Your task to perform on an android device: Search for asus rog on target, select the first entry, and add it to the cart. Image 0: 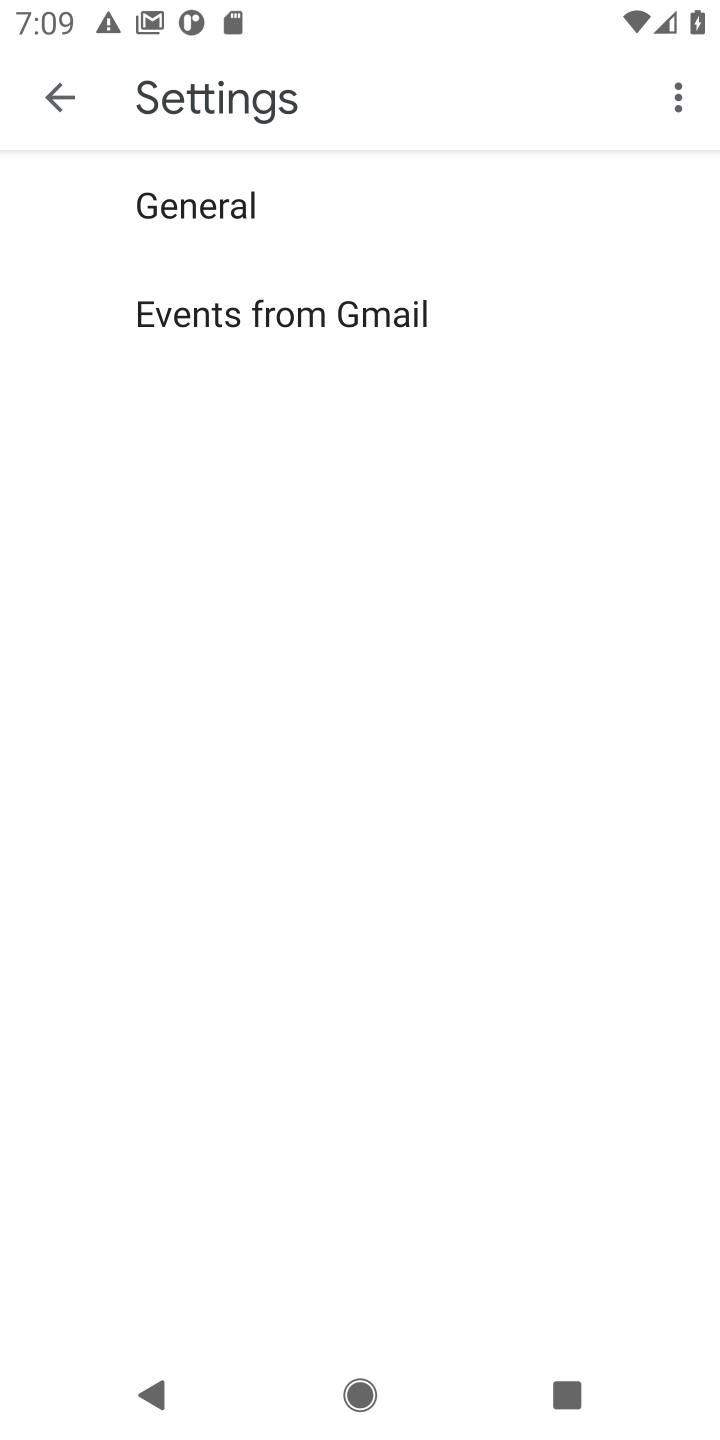
Step 0: press home button
Your task to perform on an android device: Search for asus rog on target, select the first entry, and add it to the cart. Image 1: 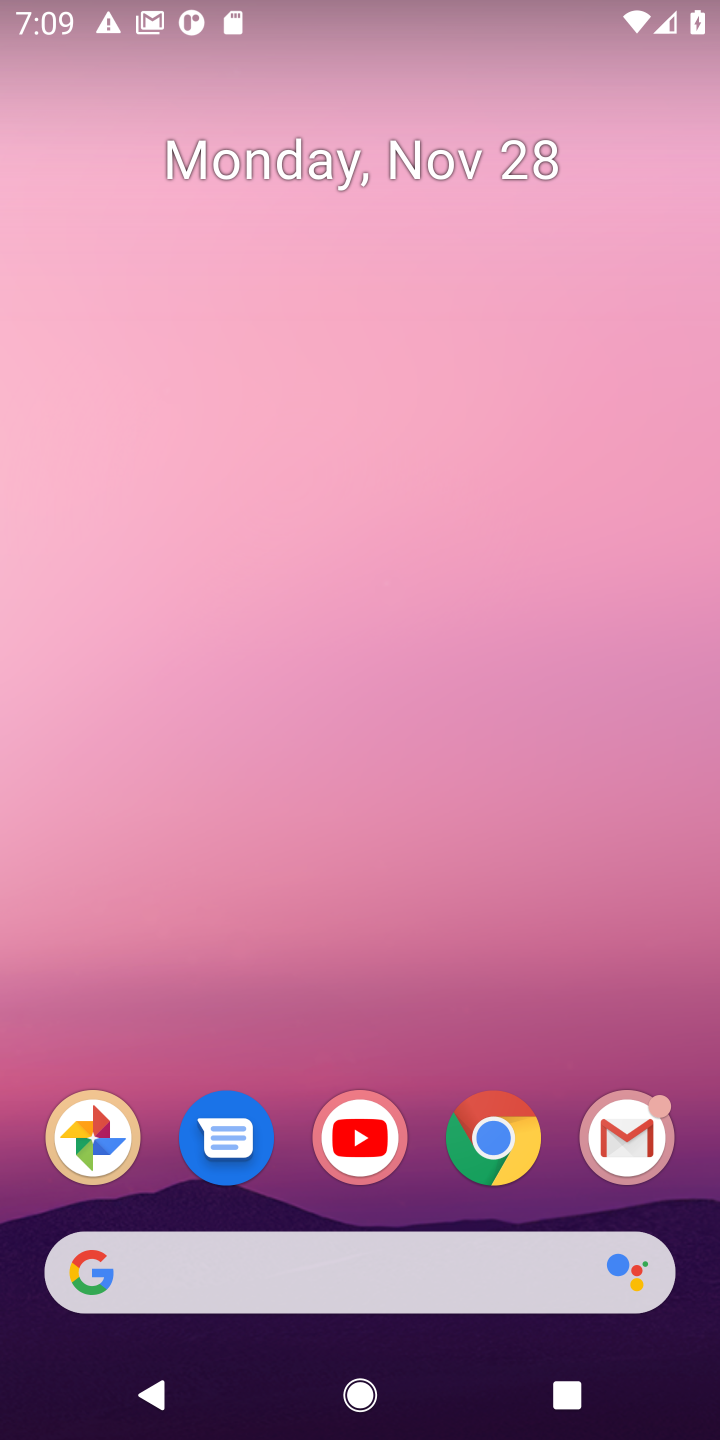
Step 1: click (467, 1143)
Your task to perform on an android device: Search for asus rog on target, select the first entry, and add it to the cart. Image 2: 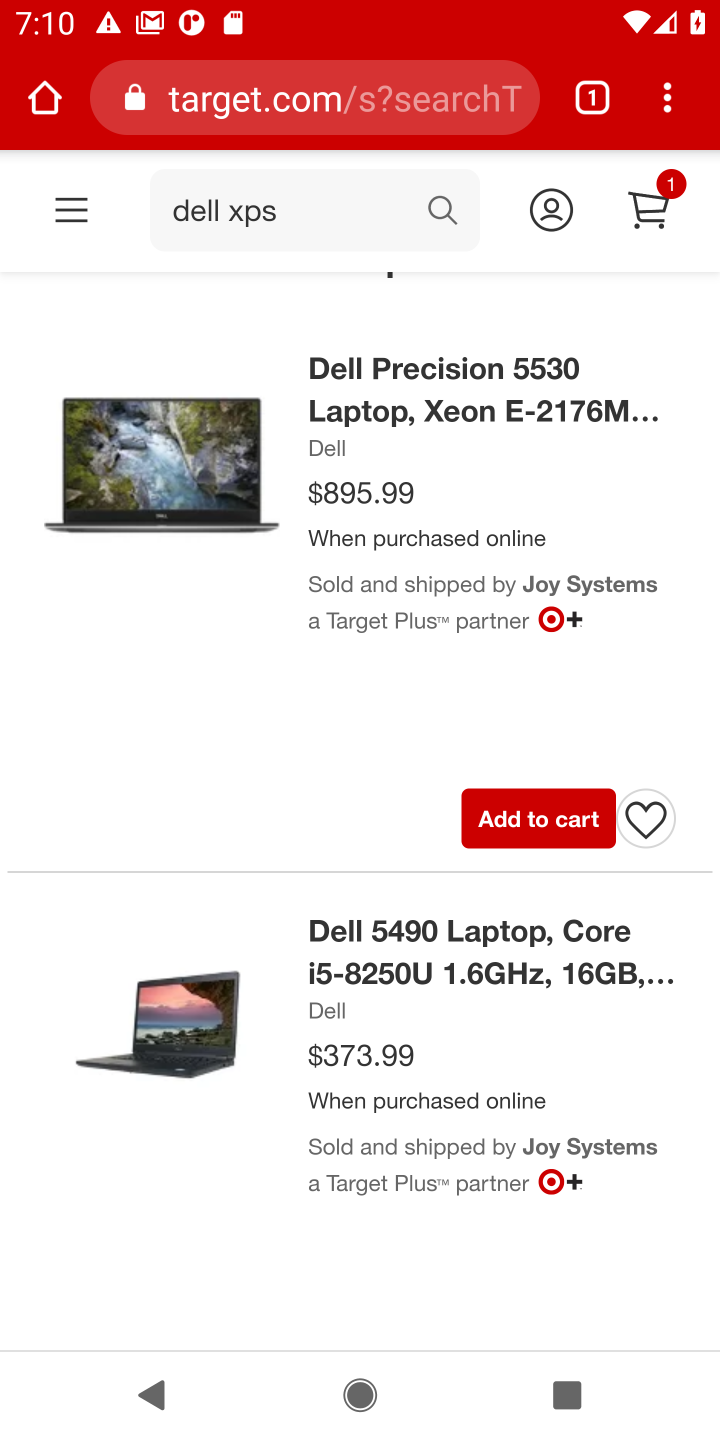
Step 2: click (218, 211)
Your task to perform on an android device: Search for asus rog on target, select the first entry, and add it to the cart. Image 3: 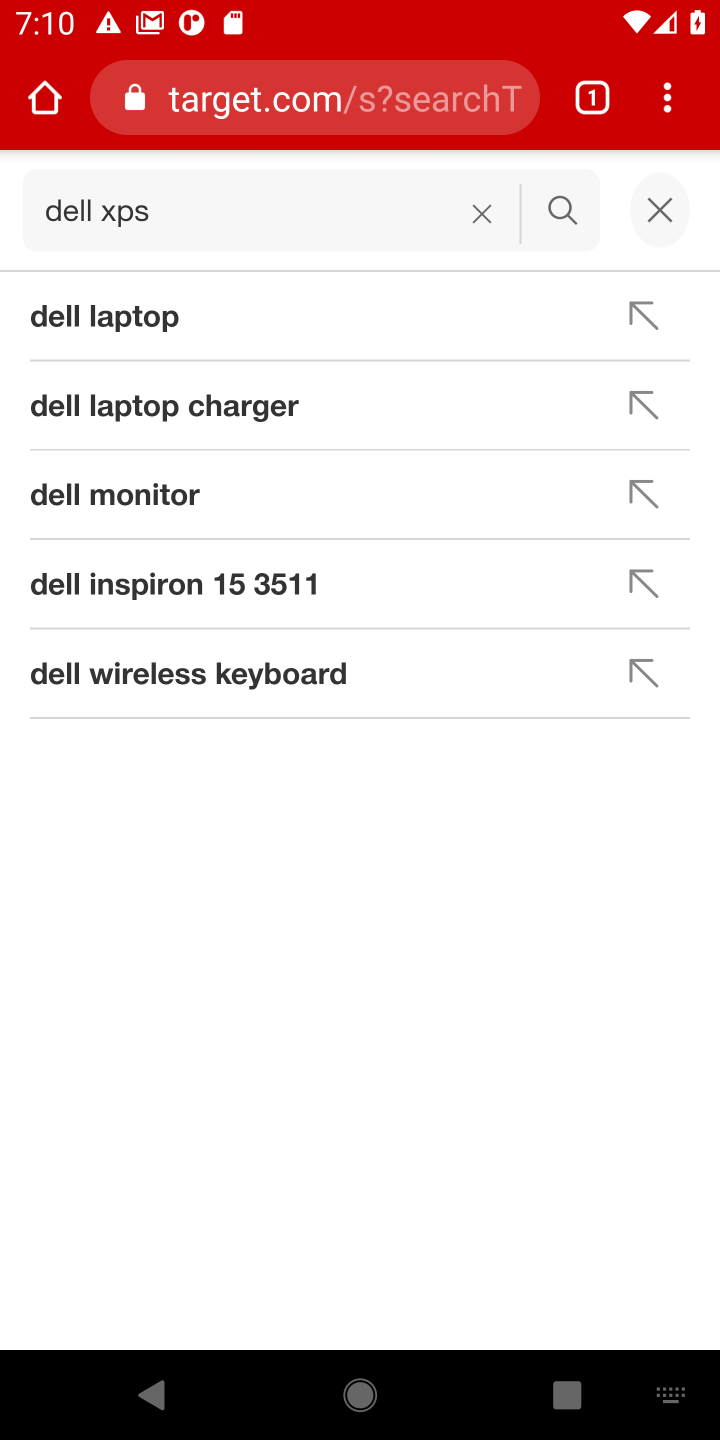
Step 3: click (472, 208)
Your task to perform on an android device: Search for asus rog on target, select the first entry, and add it to the cart. Image 4: 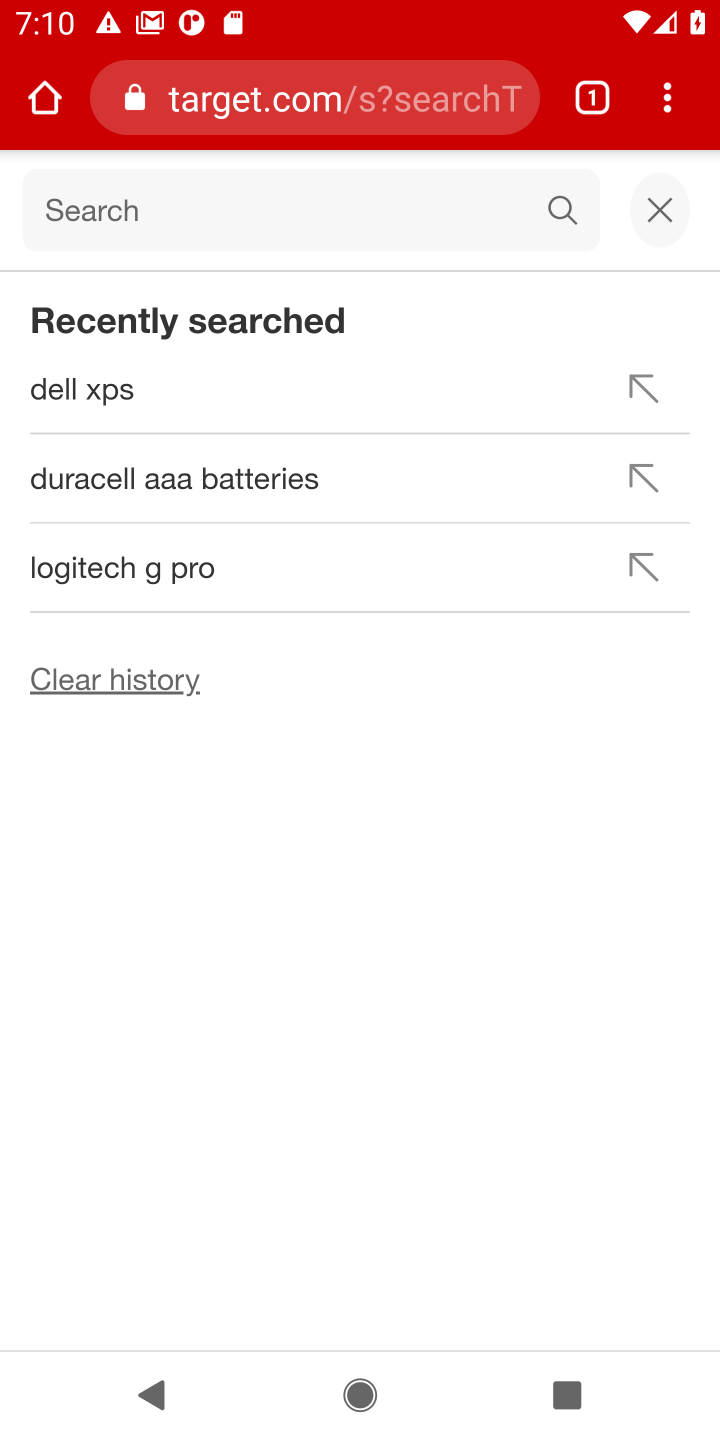
Step 4: type "asus rog "
Your task to perform on an android device: Search for asus rog on target, select the first entry, and add it to the cart. Image 5: 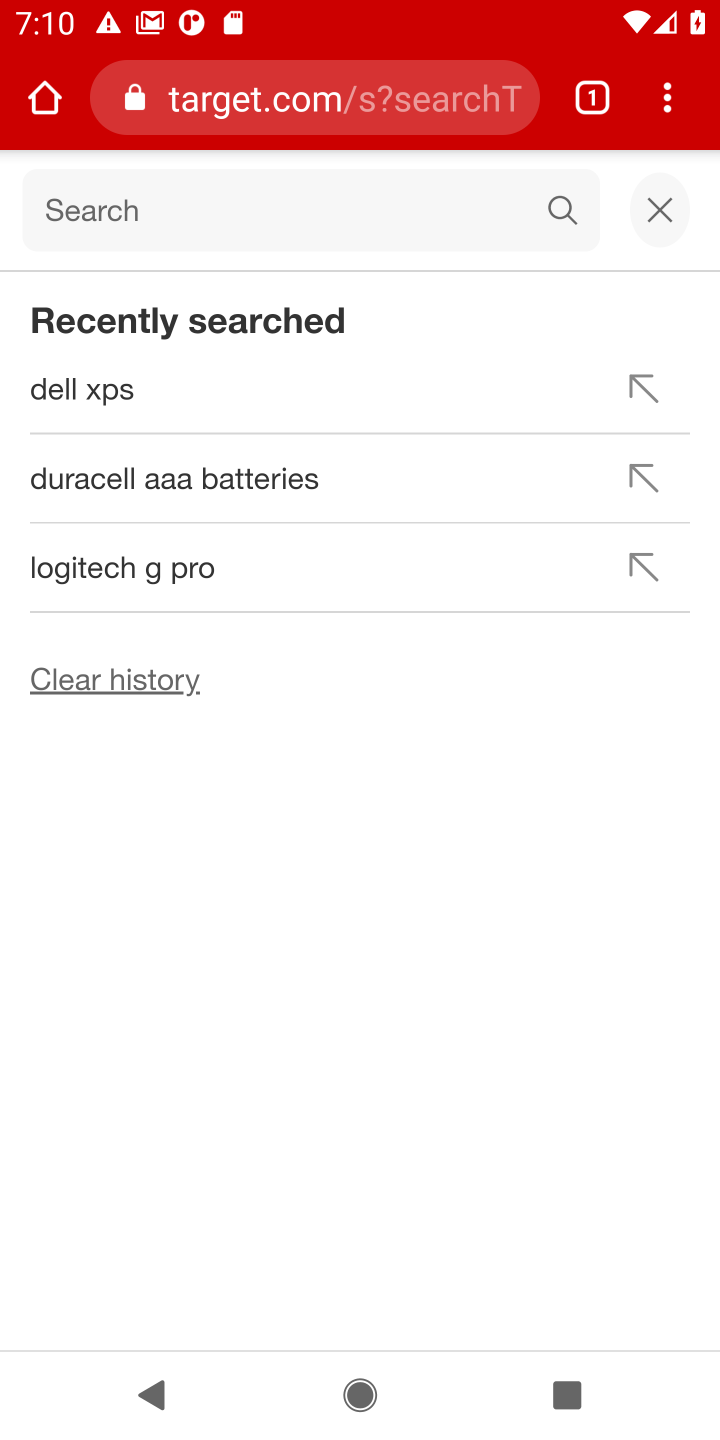
Step 5: click (77, 214)
Your task to perform on an android device: Search for asus rog on target, select the first entry, and add it to the cart. Image 6: 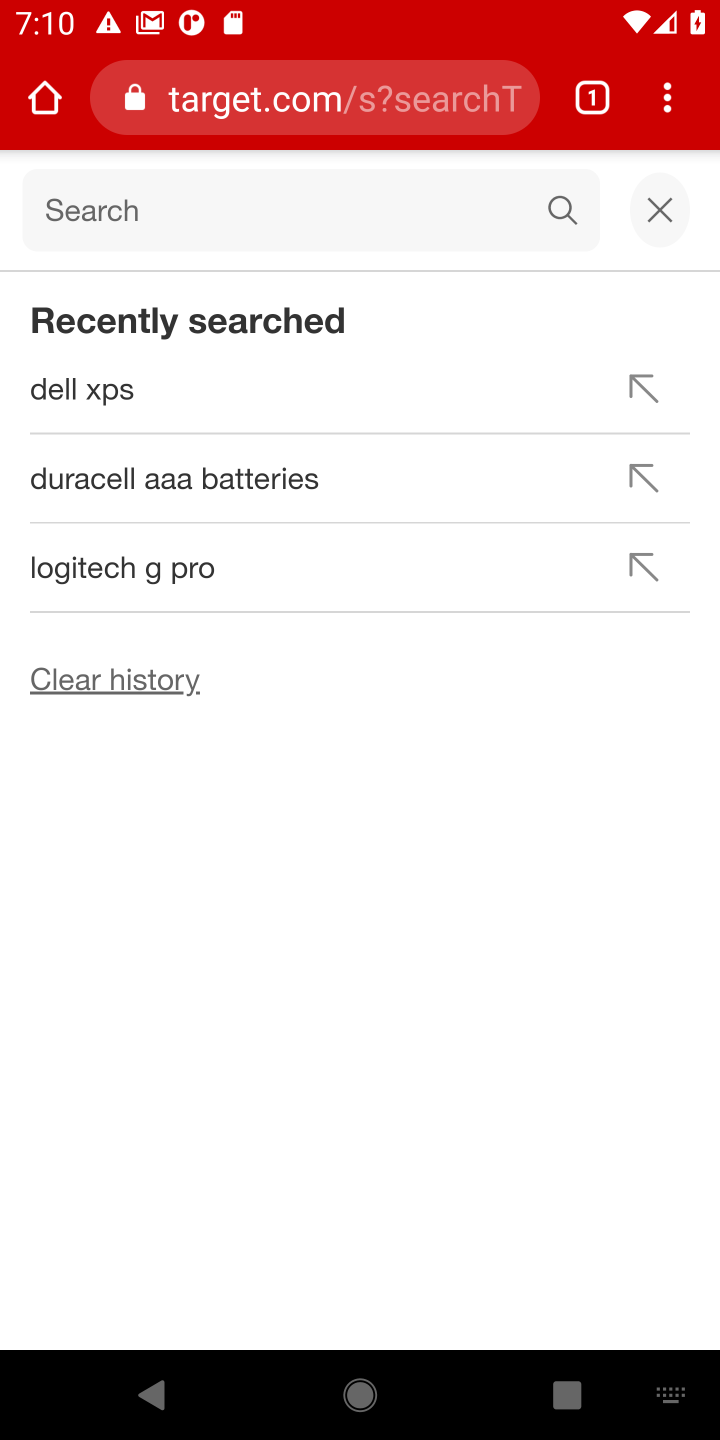
Step 6: type "asus rog "
Your task to perform on an android device: Search for asus rog on target, select the first entry, and add it to the cart. Image 7: 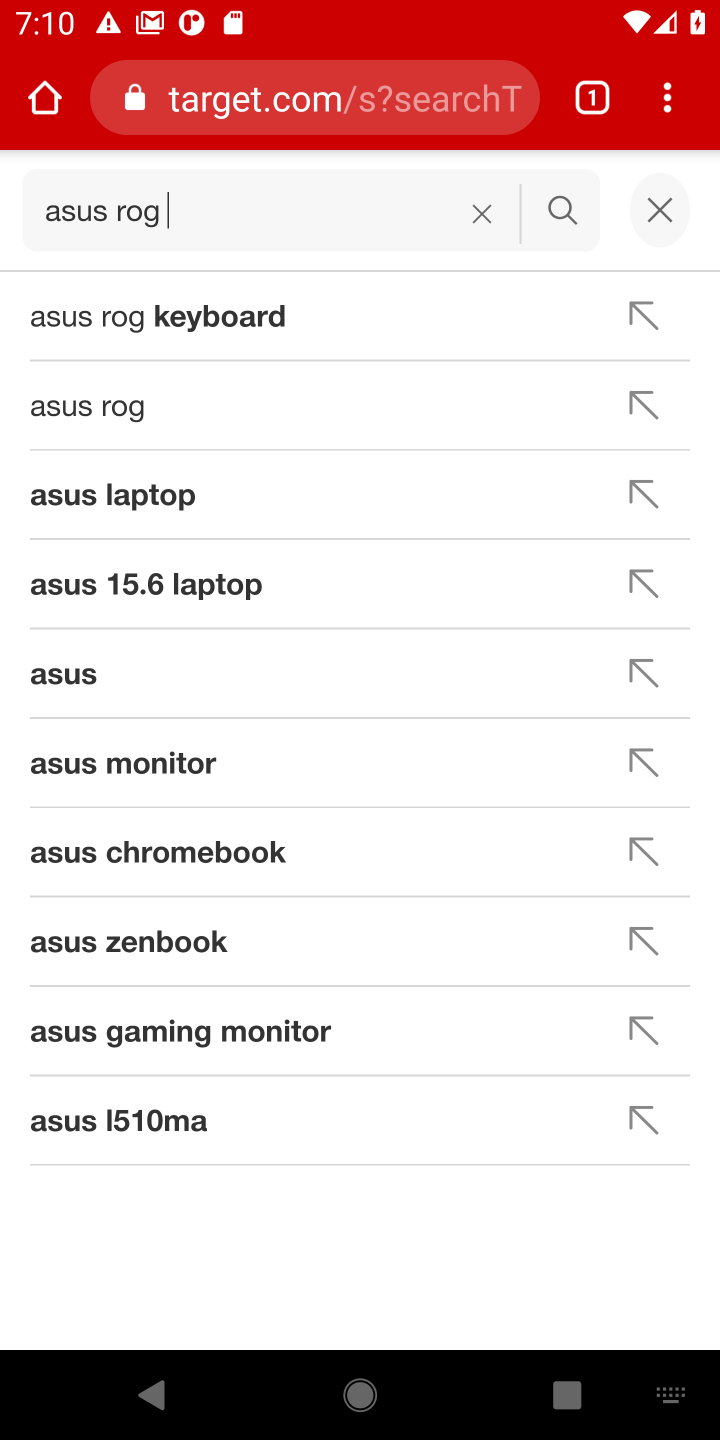
Step 7: click (110, 405)
Your task to perform on an android device: Search for asus rog on target, select the first entry, and add it to the cart. Image 8: 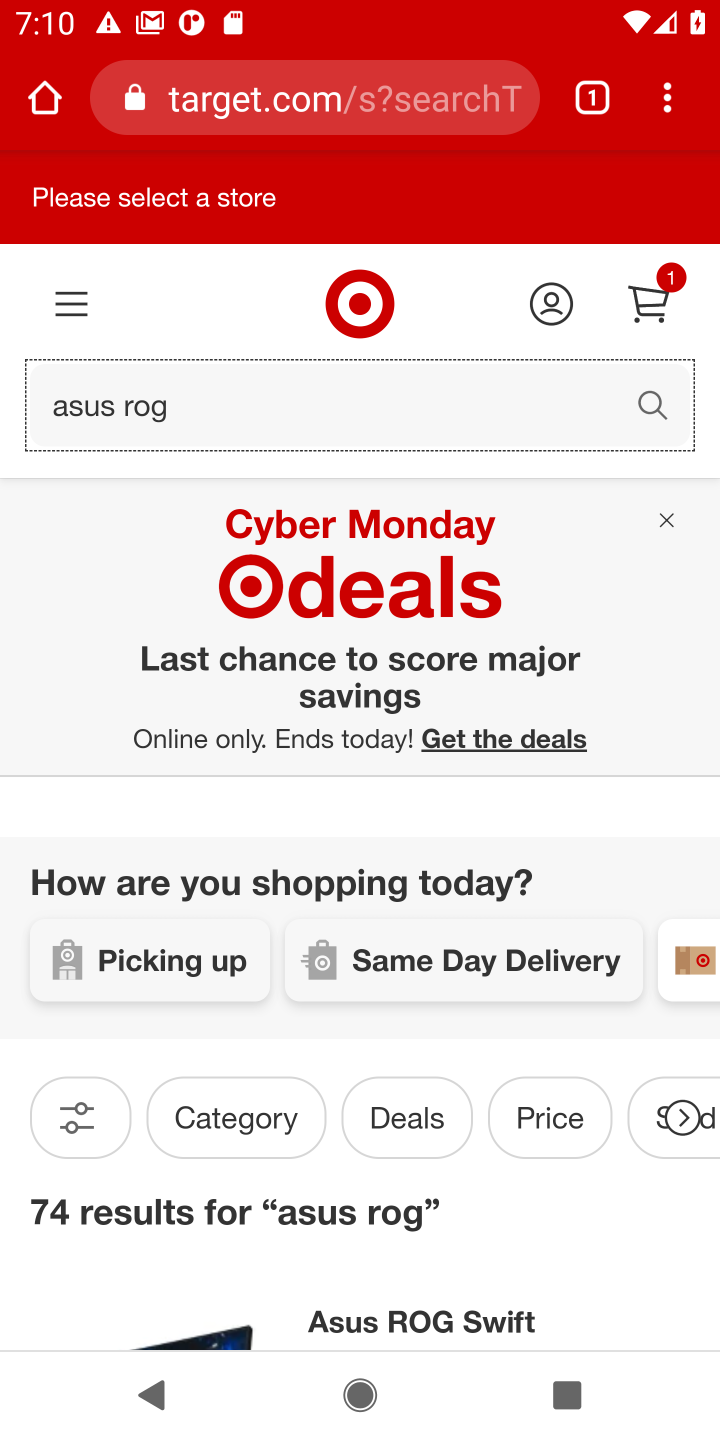
Step 8: drag from (279, 1034) to (276, 510)
Your task to perform on an android device: Search for asus rog on target, select the first entry, and add it to the cart. Image 9: 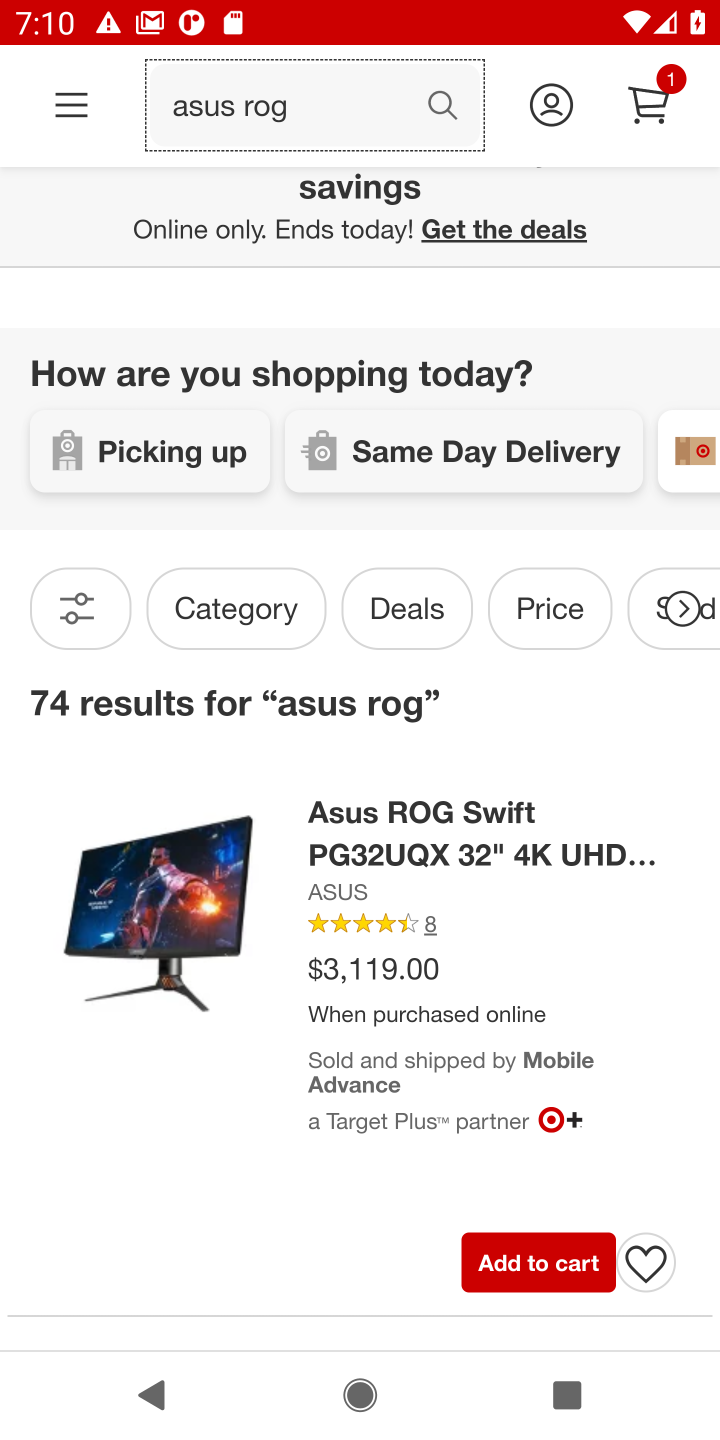
Step 9: click (525, 1274)
Your task to perform on an android device: Search for asus rog on target, select the first entry, and add it to the cart. Image 10: 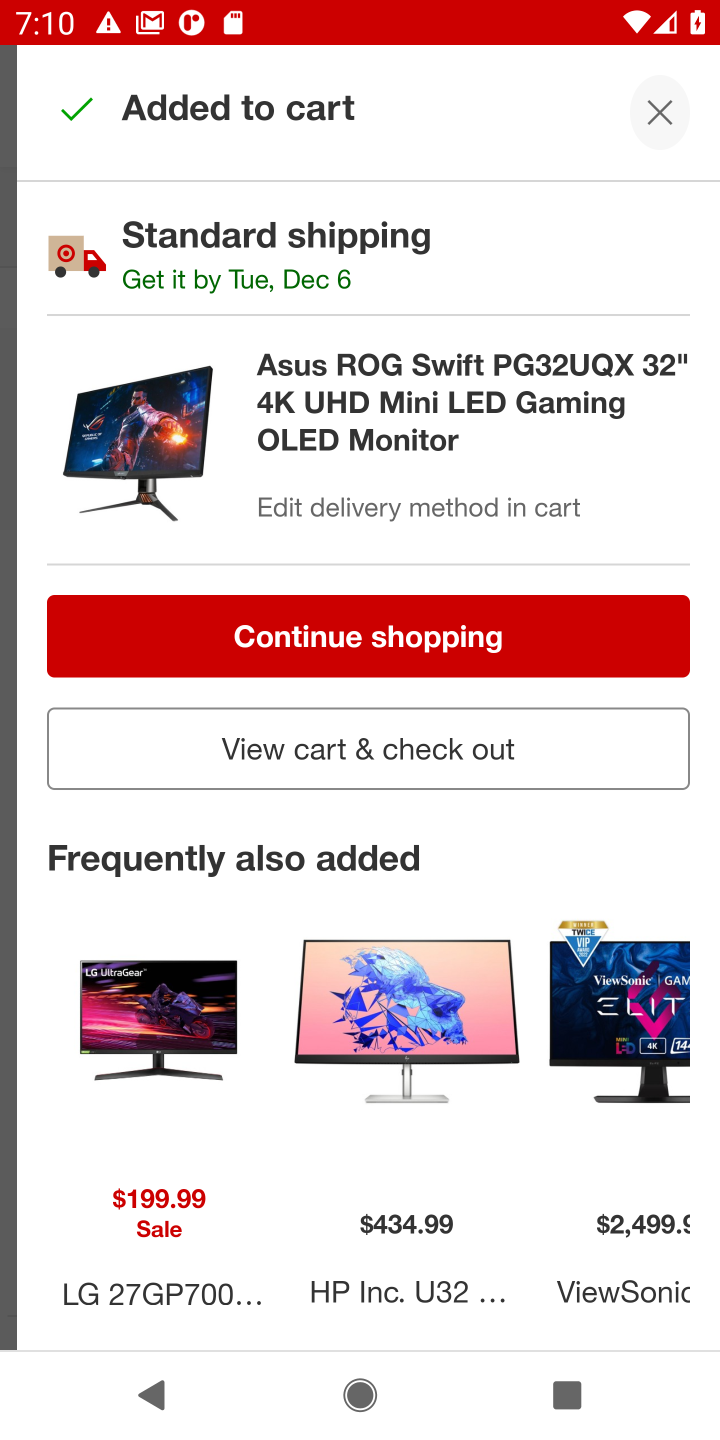
Step 10: task complete